Your task to perform on an android device: toggle sleep mode Image 0: 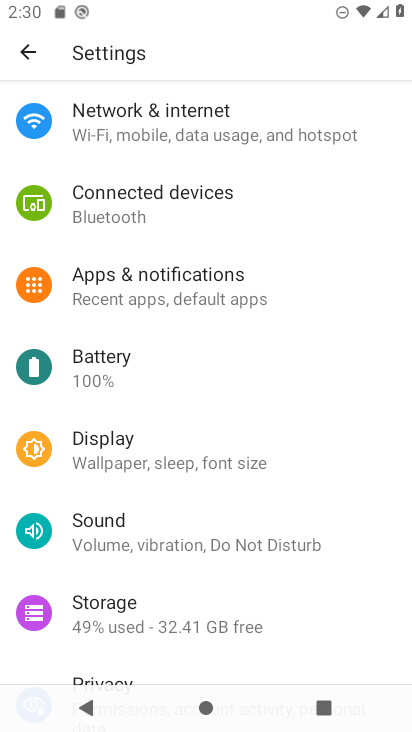
Step 0: click (226, 455)
Your task to perform on an android device: toggle sleep mode Image 1: 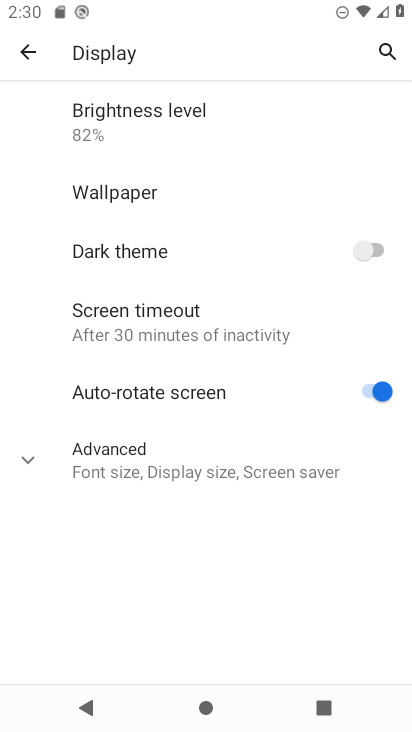
Step 1: click (25, 455)
Your task to perform on an android device: toggle sleep mode Image 2: 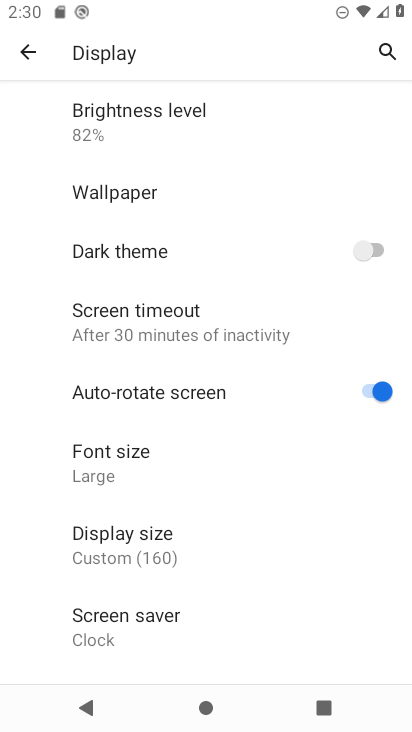
Step 2: task complete